Your task to perform on an android device: change timer sound Image 0: 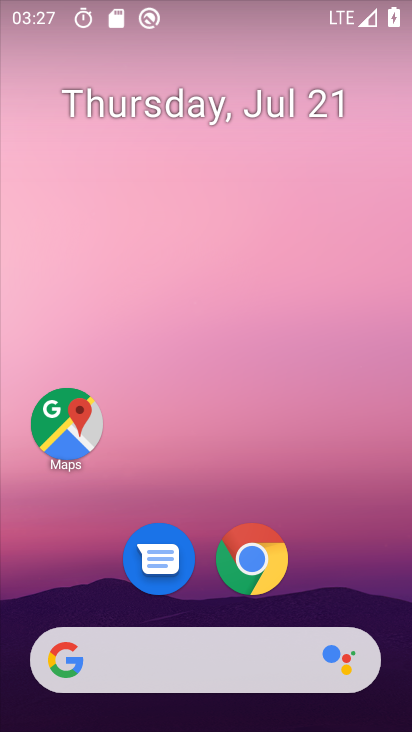
Step 0: drag from (355, 557) to (362, 82)
Your task to perform on an android device: change timer sound Image 1: 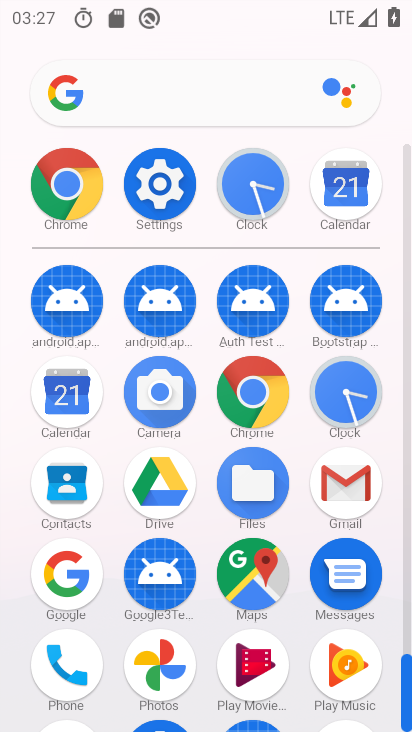
Step 1: click (342, 387)
Your task to perform on an android device: change timer sound Image 2: 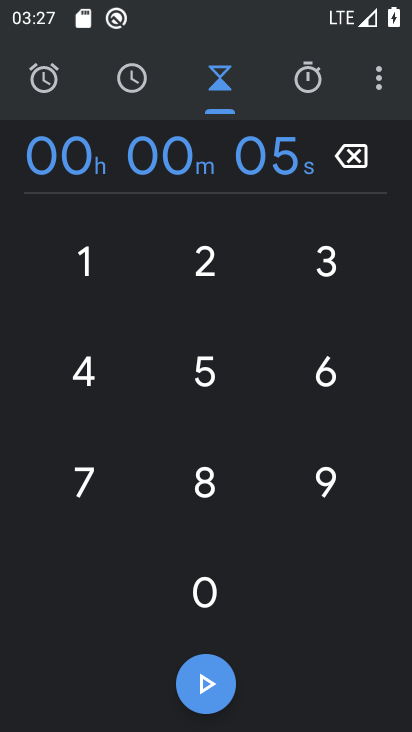
Step 2: click (381, 85)
Your task to perform on an android device: change timer sound Image 3: 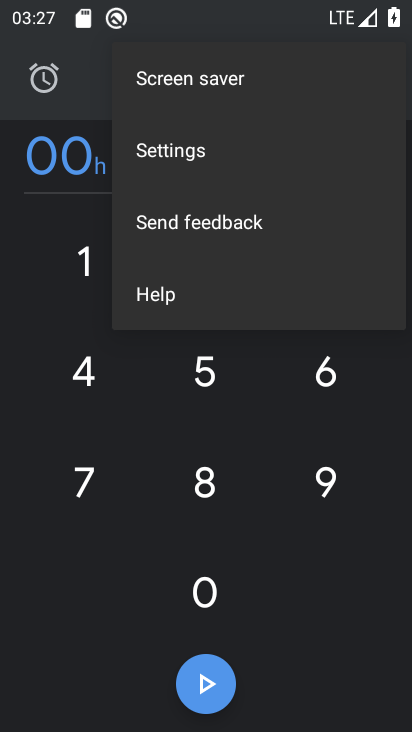
Step 3: click (215, 152)
Your task to perform on an android device: change timer sound Image 4: 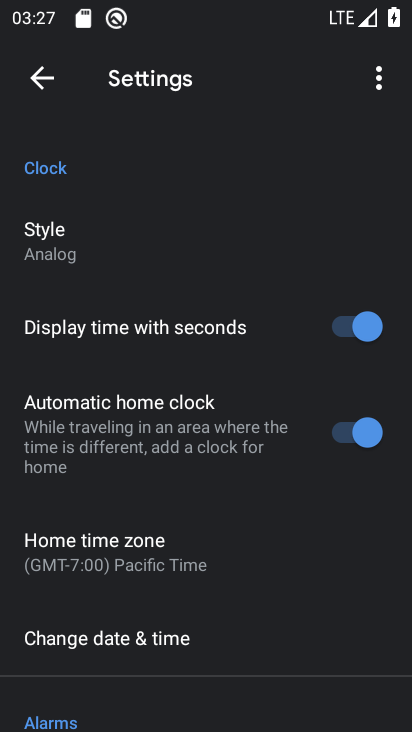
Step 4: drag from (281, 495) to (292, 432)
Your task to perform on an android device: change timer sound Image 5: 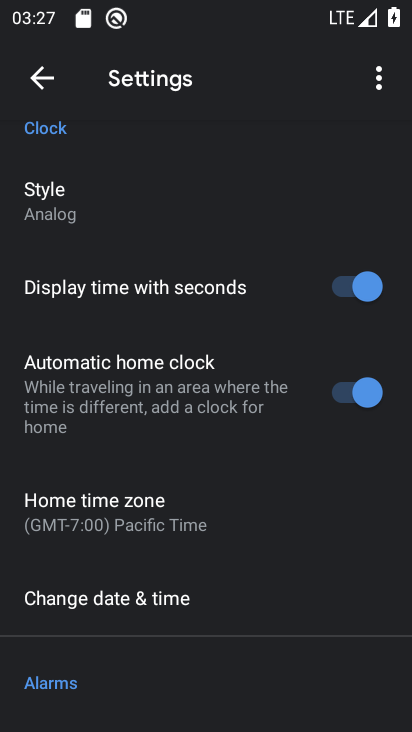
Step 5: drag from (303, 497) to (309, 431)
Your task to perform on an android device: change timer sound Image 6: 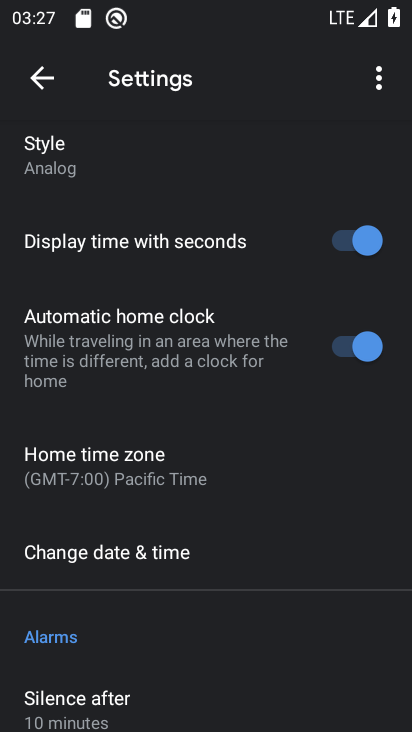
Step 6: drag from (321, 498) to (321, 417)
Your task to perform on an android device: change timer sound Image 7: 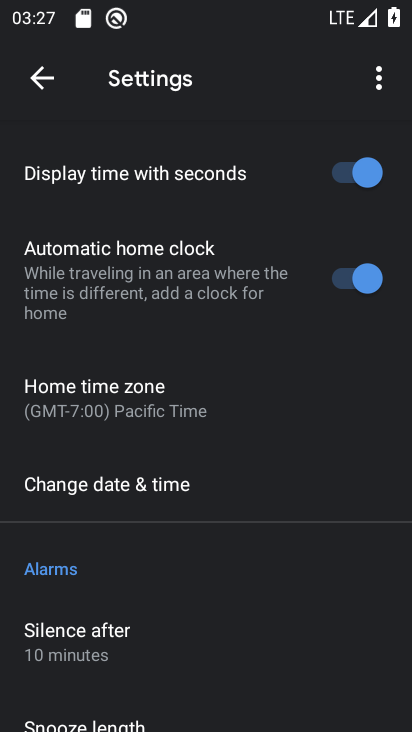
Step 7: drag from (323, 444) to (323, 380)
Your task to perform on an android device: change timer sound Image 8: 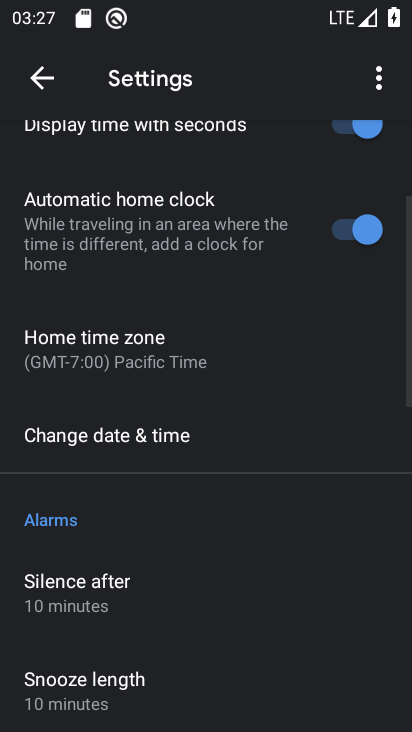
Step 8: drag from (323, 425) to (324, 357)
Your task to perform on an android device: change timer sound Image 9: 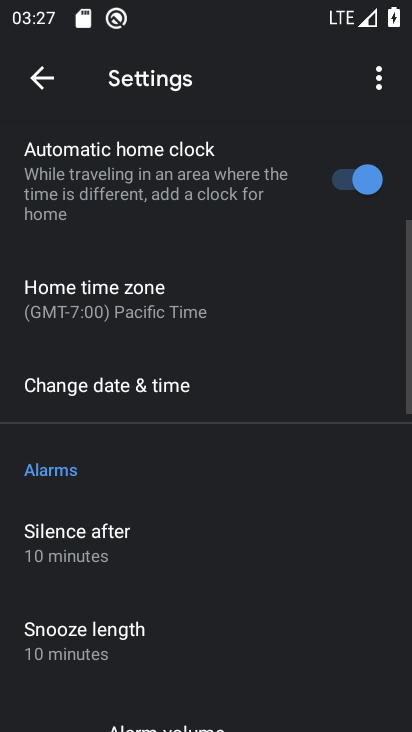
Step 9: drag from (320, 437) to (320, 365)
Your task to perform on an android device: change timer sound Image 10: 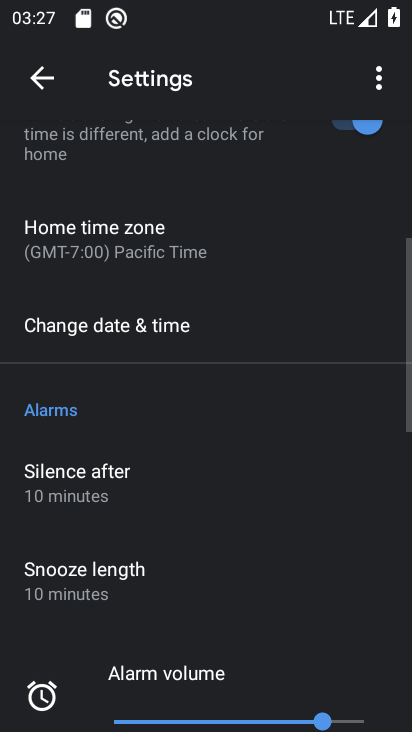
Step 10: drag from (315, 446) to (315, 373)
Your task to perform on an android device: change timer sound Image 11: 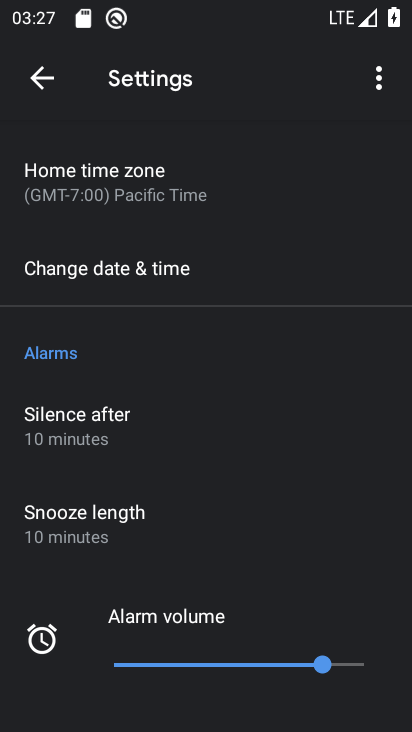
Step 11: drag from (319, 444) to (320, 374)
Your task to perform on an android device: change timer sound Image 12: 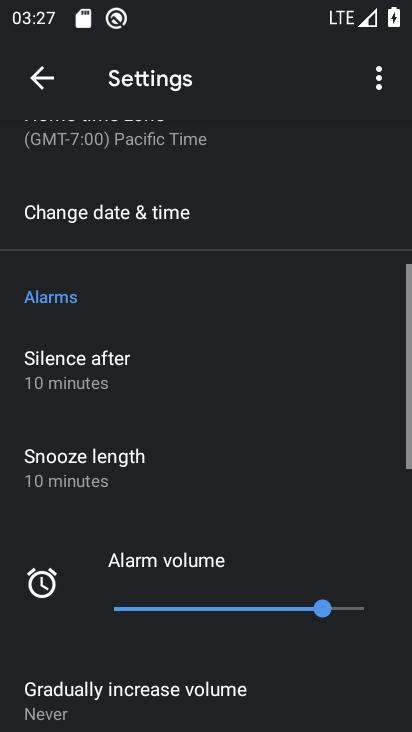
Step 12: drag from (318, 421) to (317, 366)
Your task to perform on an android device: change timer sound Image 13: 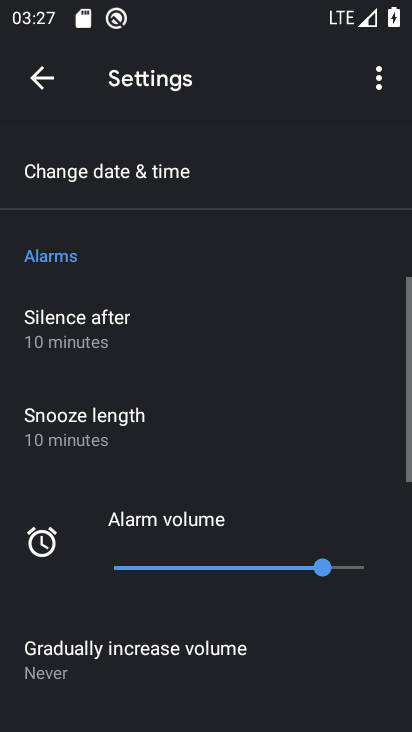
Step 13: drag from (319, 427) to (319, 350)
Your task to perform on an android device: change timer sound Image 14: 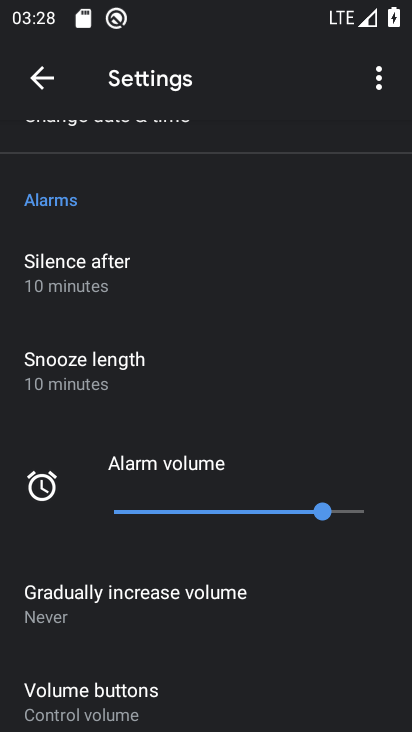
Step 14: drag from (326, 423) to (327, 341)
Your task to perform on an android device: change timer sound Image 15: 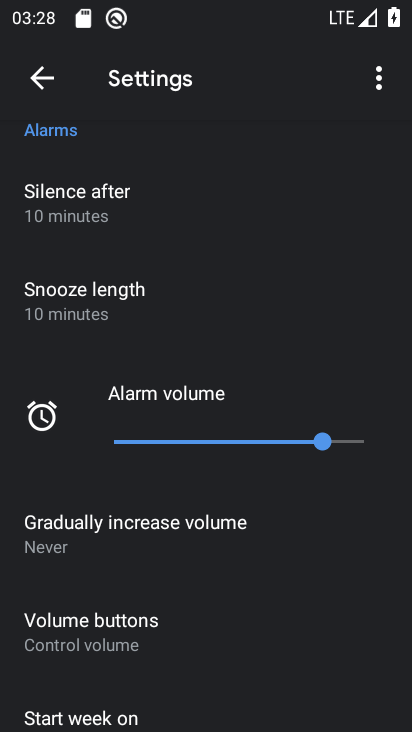
Step 15: drag from (333, 444) to (333, 366)
Your task to perform on an android device: change timer sound Image 16: 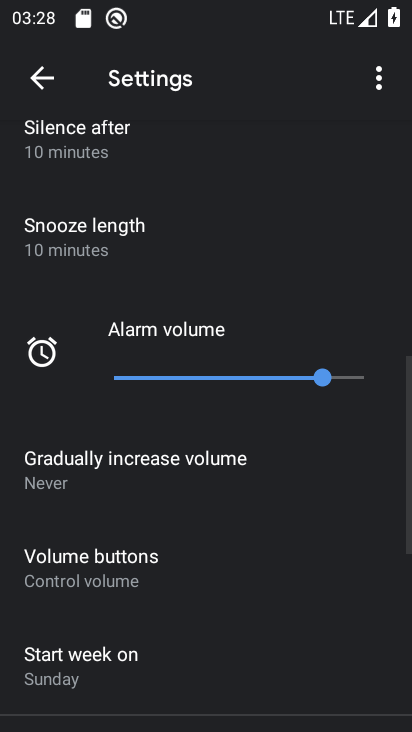
Step 16: drag from (333, 452) to (331, 361)
Your task to perform on an android device: change timer sound Image 17: 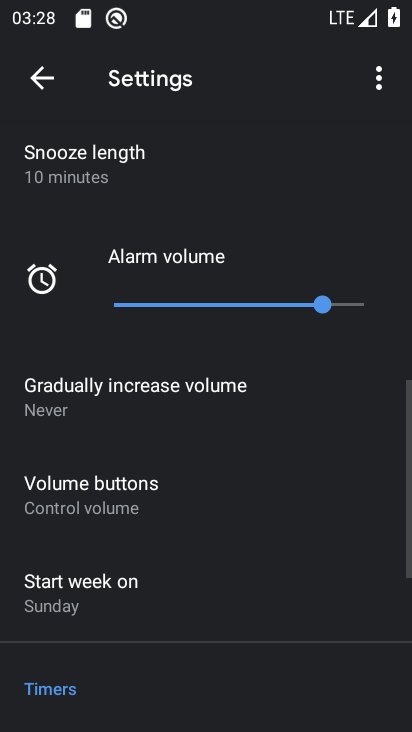
Step 17: drag from (333, 436) to (335, 357)
Your task to perform on an android device: change timer sound Image 18: 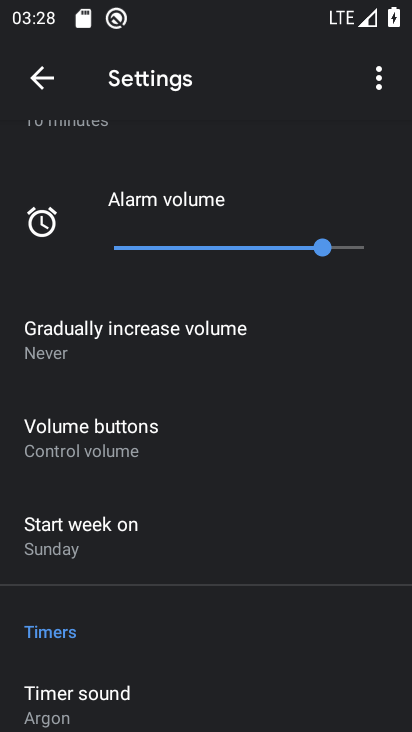
Step 18: drag from (333, 429) to (331, 363)
Your task to perform on an android device: change timer sound Image 19: 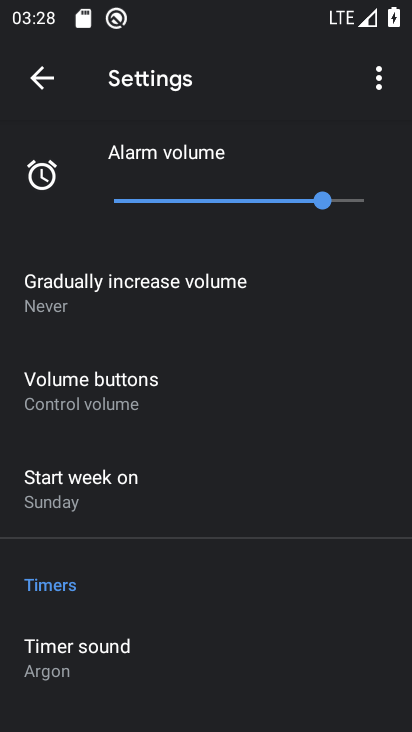
Step 19: drag from (339, 453) to (337, 367)
Your task to perform on an android device: change timer sound Image 20: 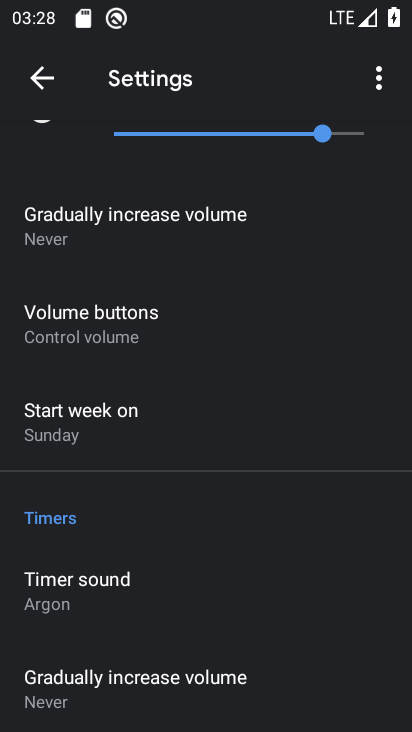
Step 20: drag from (338, 474) to (338, 408)
Your task to perform on an android device: change timer sound Image 21: 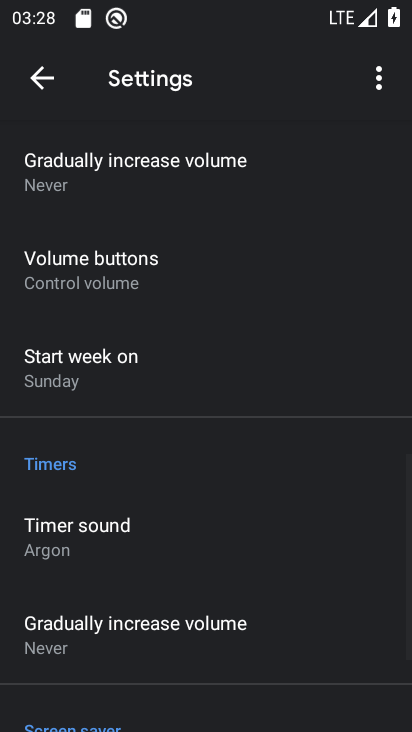
Step 21: drag from (334, 482) to (337, 393)
Your task to perform on an android device: change timer sound Image 22: 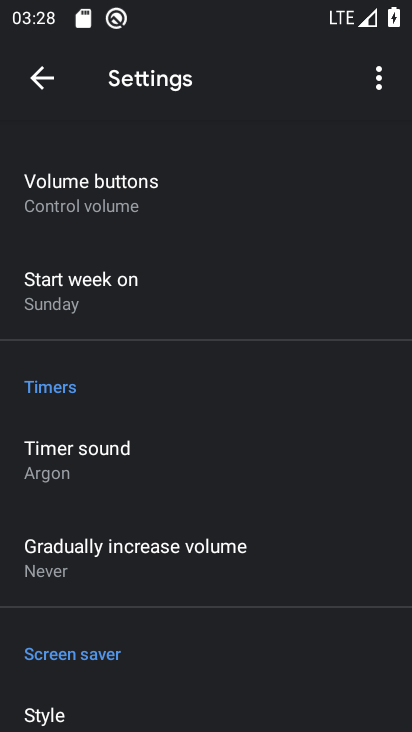
Step 22: click (285, 441)
Your task to perform on an android device: change timer sound Image 23: 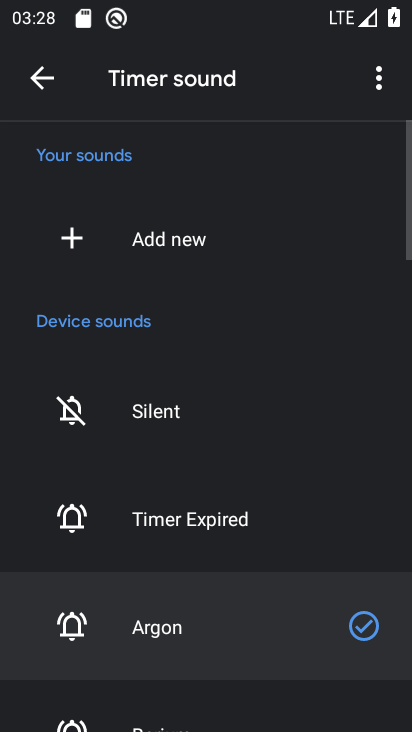
Step 23: click (242, 504)
Your task to perform on an android device: change timer sound Image 24: 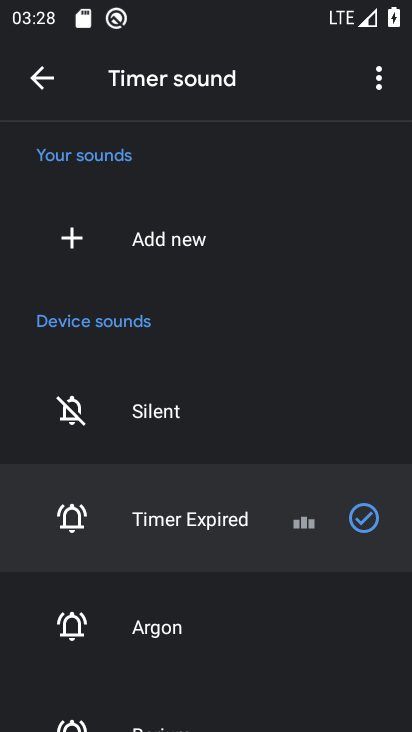
Step 24: task complete